Your task to perform on an android device: change the clock display to analog Image 0: 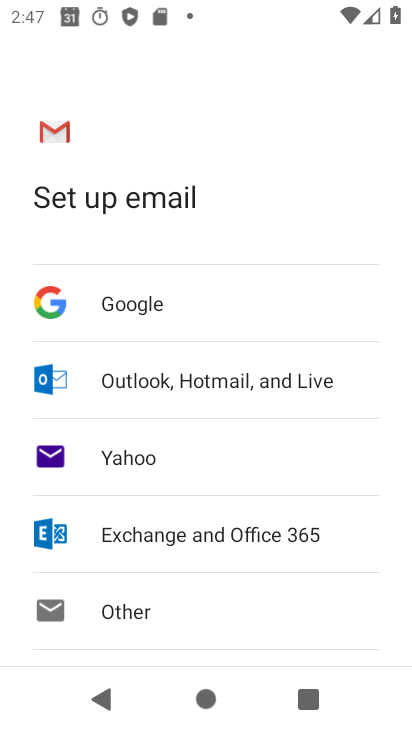
Step 0: press home button
Your task to perform on an android device: change the clock display to analog Image 1: 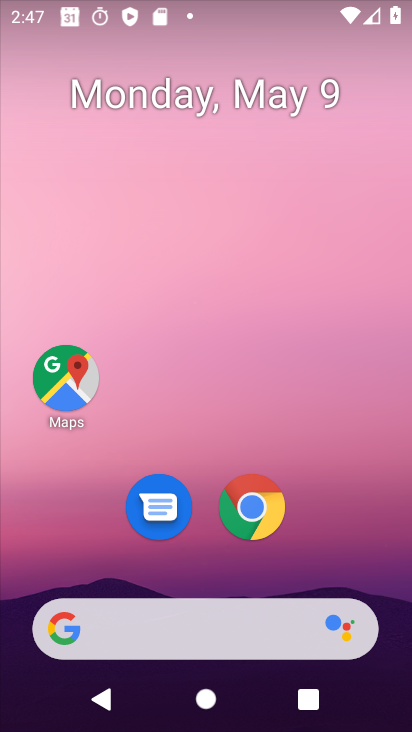
Step 1: drag from (314, 257) to (329, 192)
Your task to perform on an android device: change the clock display to analog Image 2: 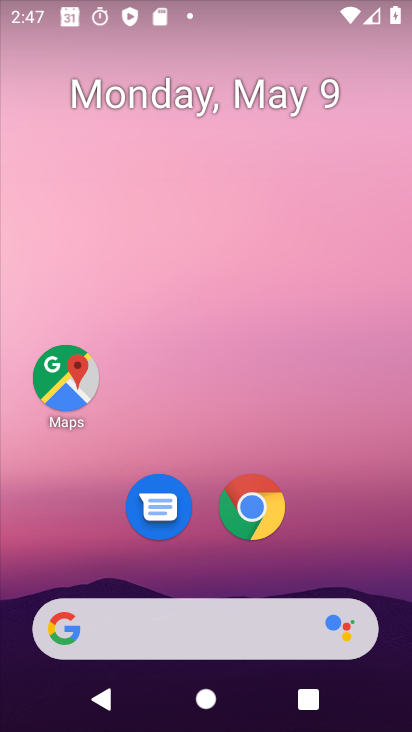
Step 2: drag from (275, 317) to (354, 145)
Your task to perform on an android device: change the clock display to analog Image 3: 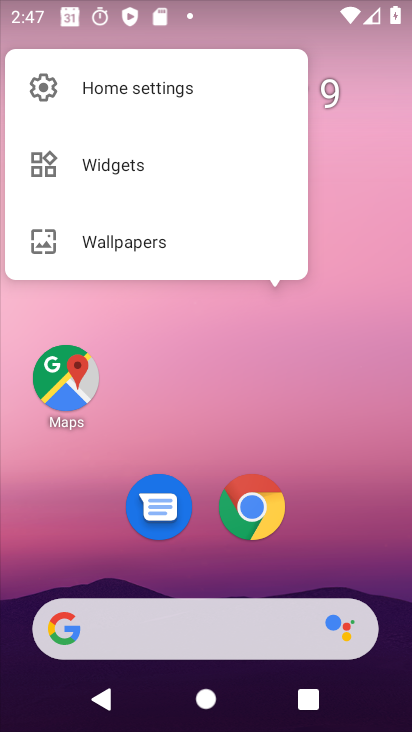
Step 3: drag from (266, 602) to (382, 187)
Your task to perform on an android device: change the clock display to analog Image 4: 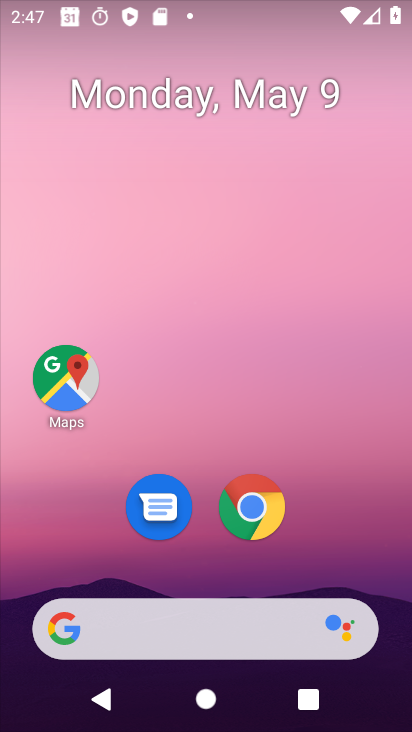
Step 4: drag from (210, 597) to (296, 34)
Your task to perform on an android device: change the clock display to analog Image 5: 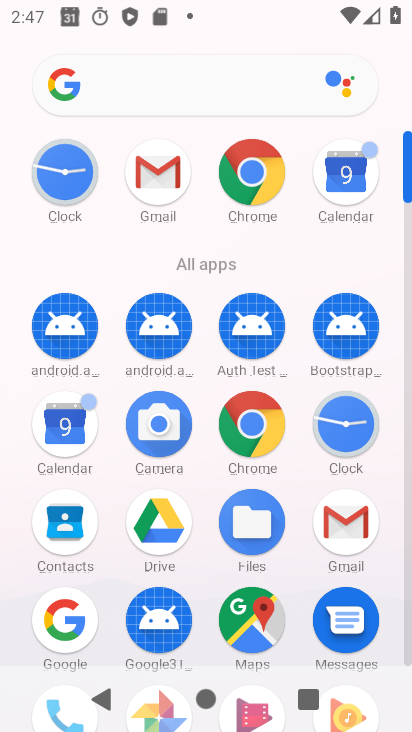
Step 5: click (334, 429)
Your task to perform on an android device: change the clock display to analog Image 6: 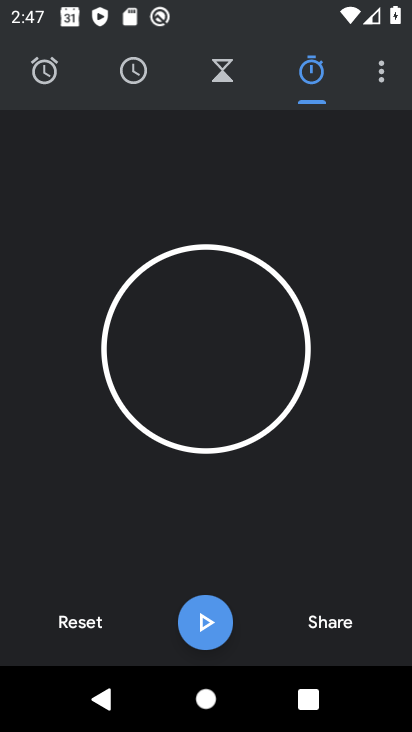
Step 6: click (380, 79)
Your task to perform on an android device: change the clock display to analog Image 7: 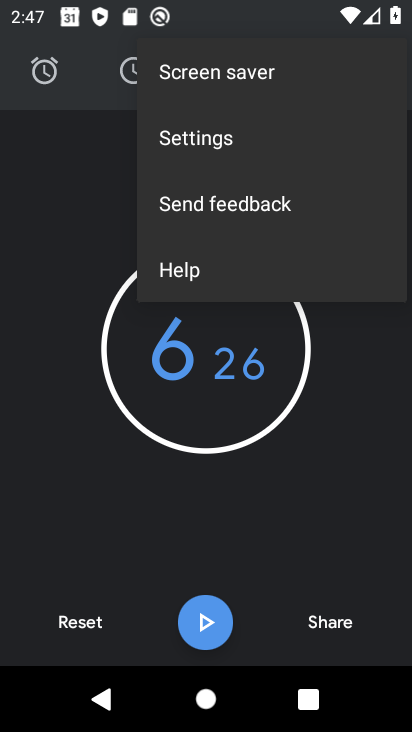
Step 7: click (165, 135)
Your task to perform on an android device: change the clock display to analog Image 8: 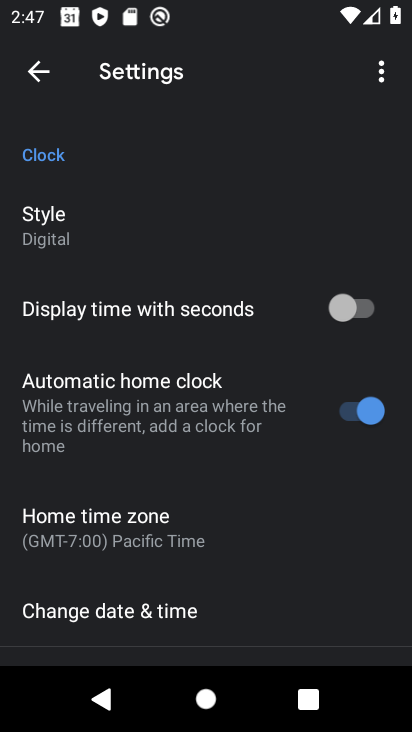
Step 8: click (137, 227)
Your task to perform on an android device: change the clock display to analog Image 9: 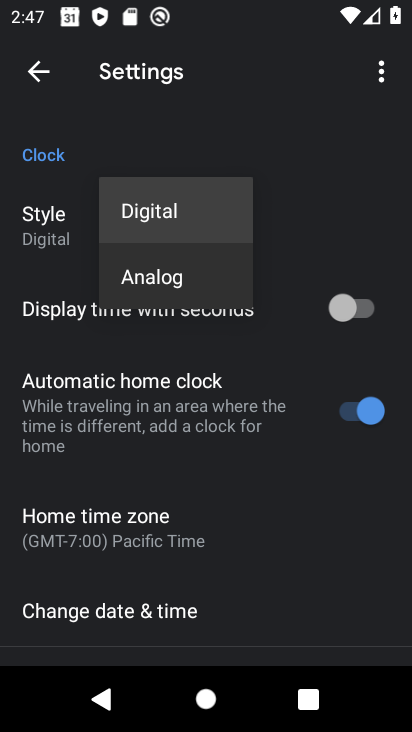
Step 9: click (164, 274)
Your task to perform on an android device: change the clock display to analog Image 10: 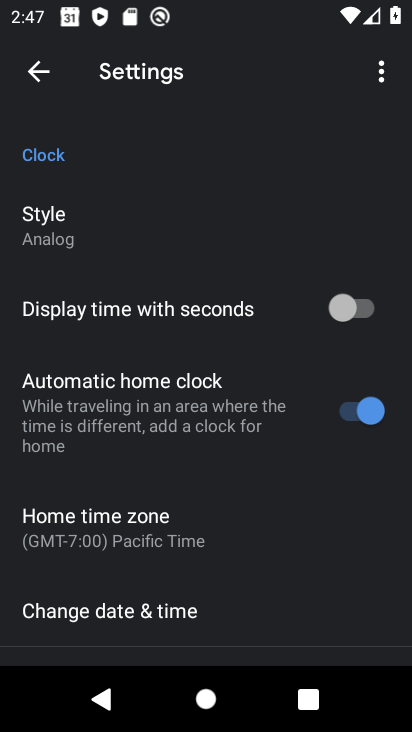
Step 10: task complete